Your task to perform on an android device: delete browsing data in the chrome app Image 0: 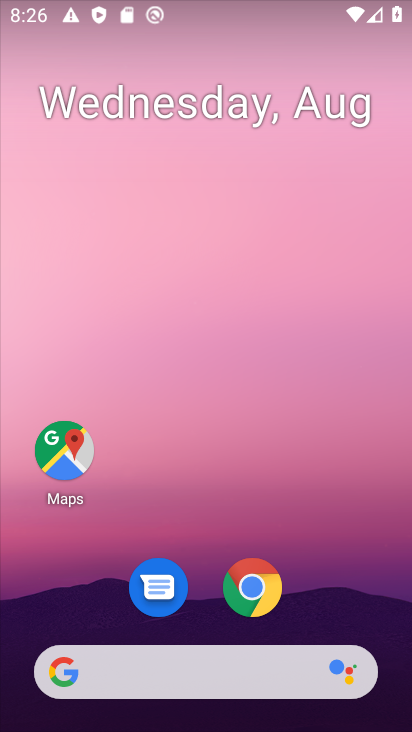
Step 0: drag from (325, 447) to (331, 302)
Your task to perform on an android device: delete browsing data in the chrome app Image 1: 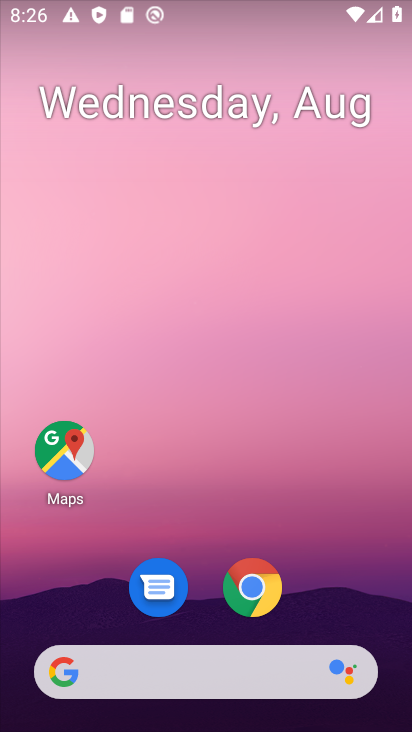
Step 1: drag from (272, 514) to (272, 172)
Your task to perform on an android device: delete browsing data in the chrome app Image 2: 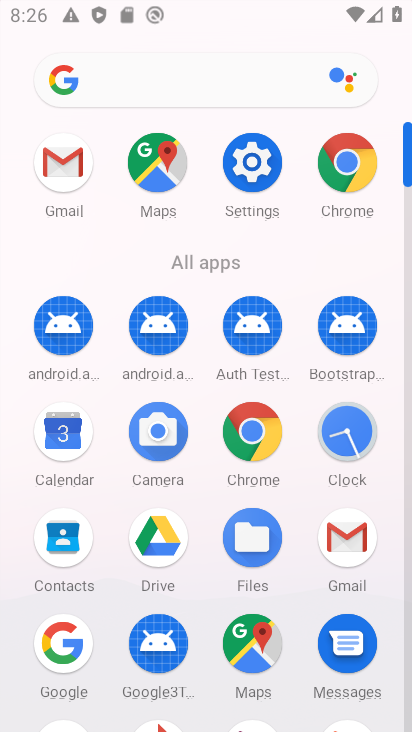
Step 2: click (298, 202)
Your task to perform on an android device: delete browsing data in the chrome app Image 3: 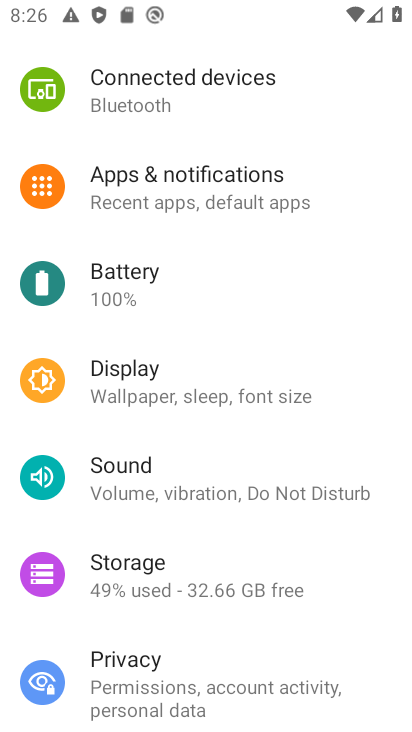
Step 3: press back button
Your task to perform on an android device: delete browsing data in the chrome app Image 4: 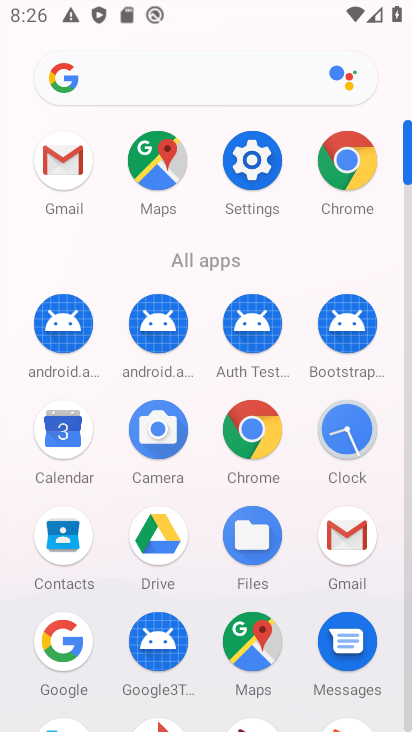
Step 4: click (356, 167)
Your task to perform on an android device: delete browsing data in the chrome app Image 5: 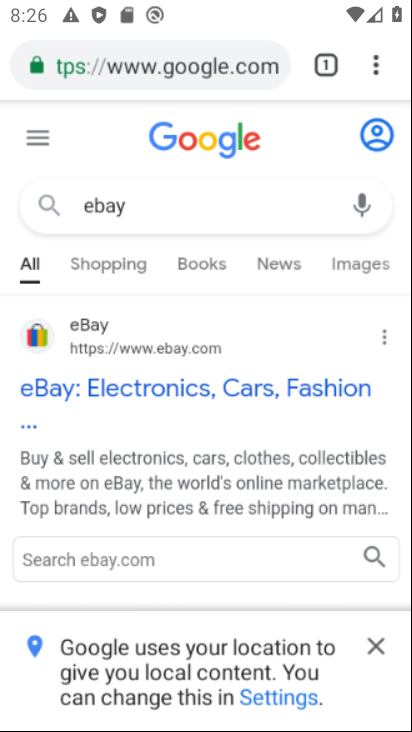
Step 5: click (356, 167)
Your task to perform on an android device: delete browsing data in the chrome app Image 6: 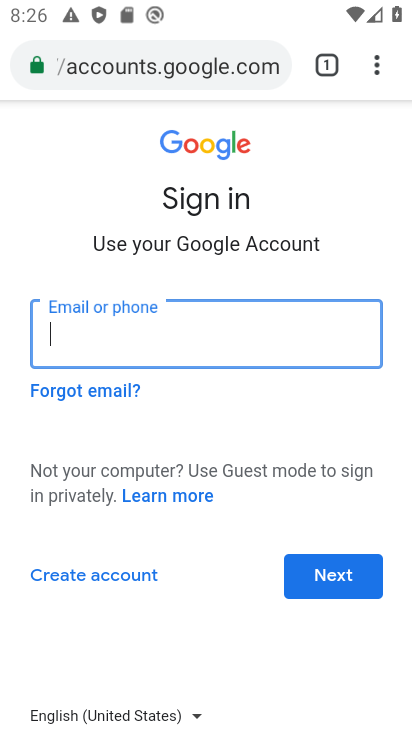
Step 6: press back button
Your task to perform on an android device: delete browsing data in the chrome app Image 7: 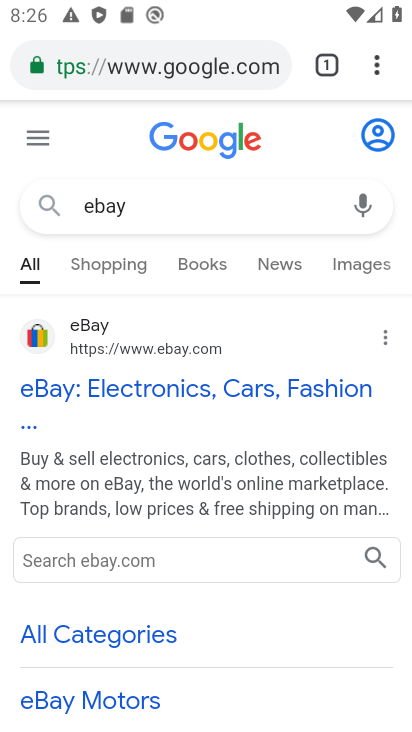
Step 7: press home button
Your task to perform on an android device: delete browsing data in the chrome app Image 8: 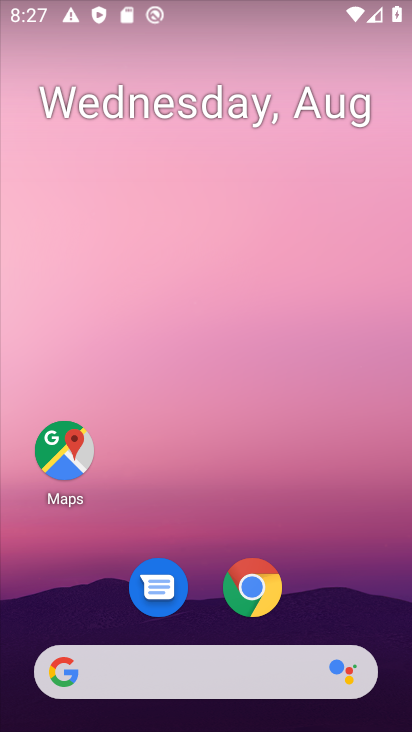
Step 8: drag from (174, 698) to (104, 312)
Your task to perform on an android device: delete browsing data in the chrome app Image 9: 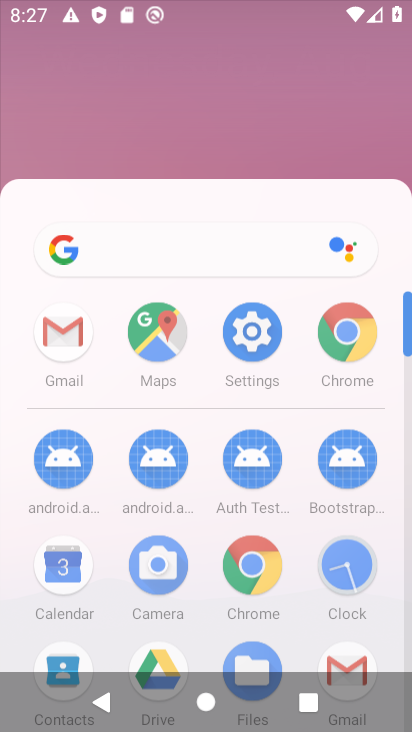
Step 9: drag from (177, 586) to (133, 246)
Your task to perform on an android device: delete browsing data in the chrome app Image 10: 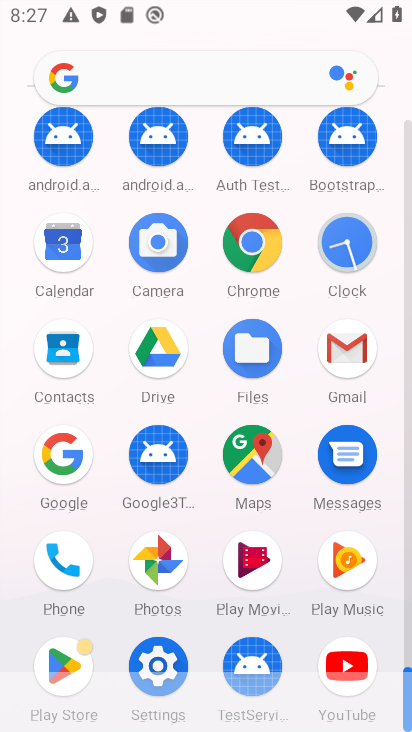
Step 10: click (244, 240)
Your task to perform on an android device: delete browsing data in the chrome app Image 11: 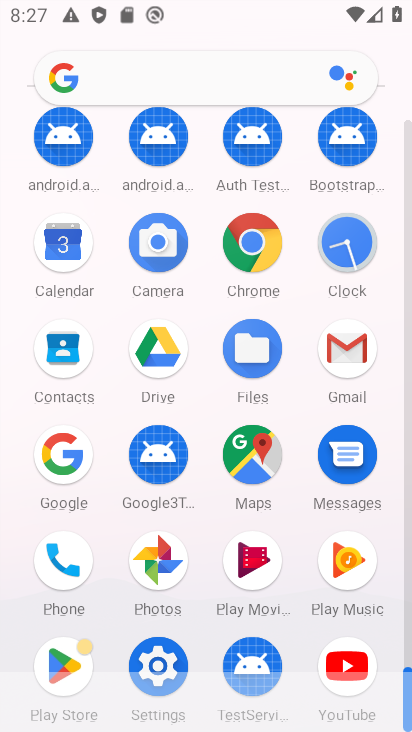
Step 11: click (244, 240)
Your task to perform on an android device: delete browsing data in the chrome app Image 12: 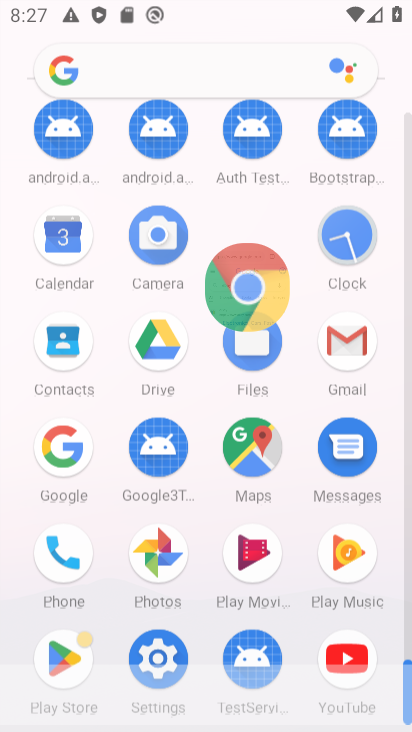
Step 12: click (244, 240)
Your task to perform on an android device: delete browsing data in the chrome app Image 13: 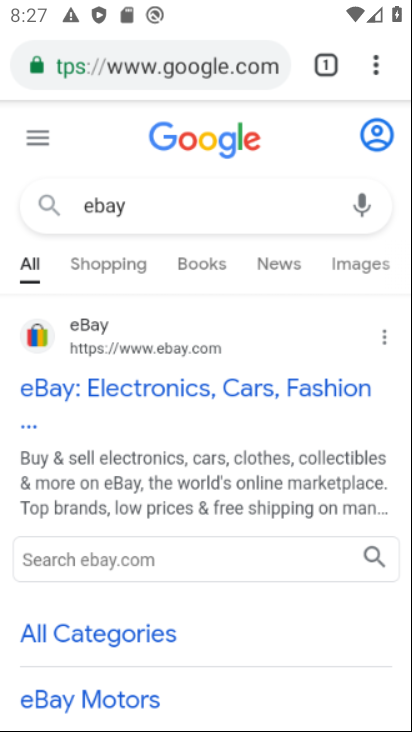
Step 13: click (244, 240)
Your task to perform on an android device: delete browsing data in the chrome app Image 14: 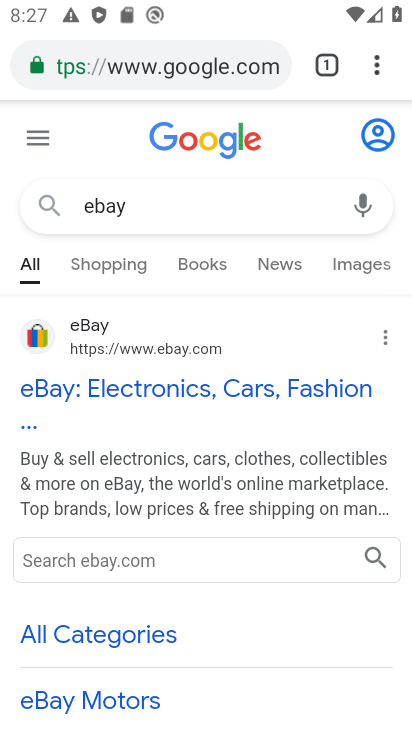
Step 14: drag from (375, 72) to (148, 361)
Your task to perform on an android device: delete browsing data in the chrome app Image 15: 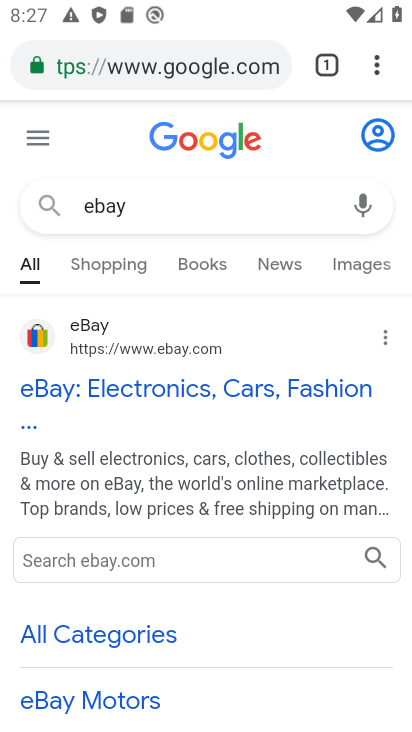
Step 15: click (148, 352)
Your task to perform on an android device: delete browsing data in the chrome app Image 16: 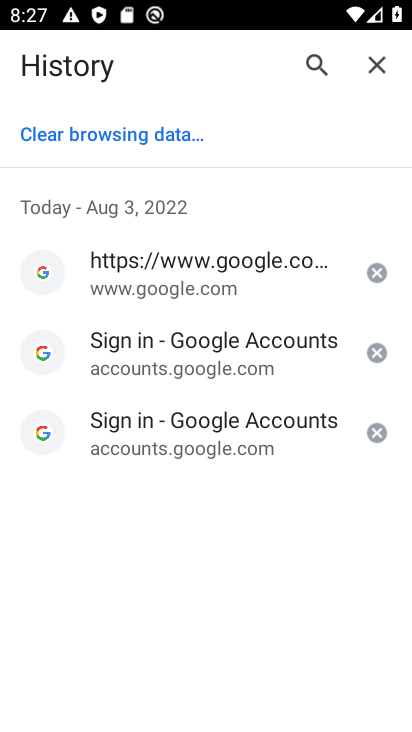
Step 16: click (102, 142)
Your task to perform on an android device: delete browsing data in the chrome app Image 17: 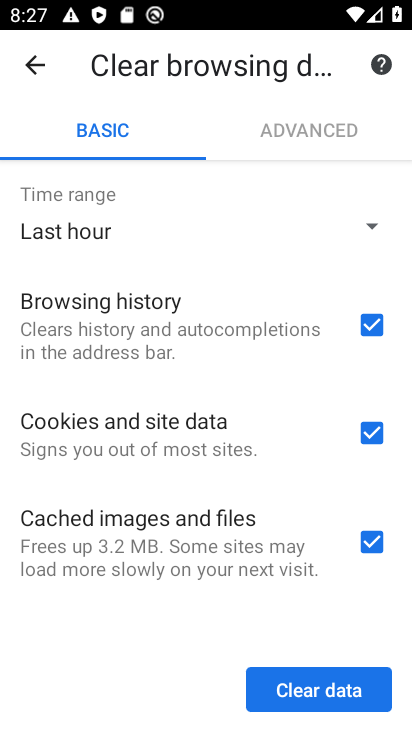
Step 17: click (336, 689)
Your task to perform on an android device: delete browsing data in the chrome app Image 18: 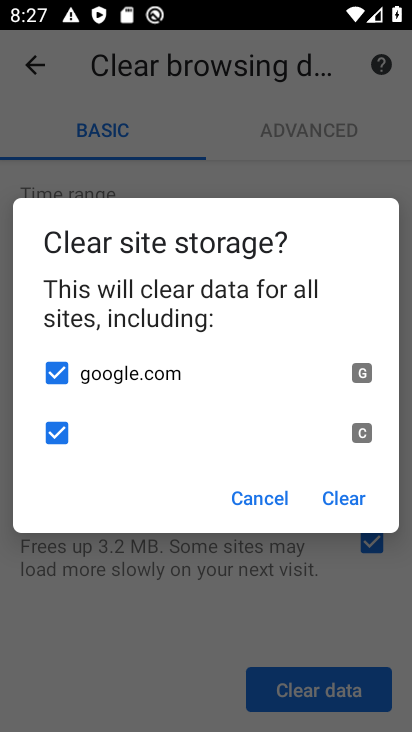
Step 18: click (348, 504)
Your task to perform on an android device: delete browsing data in the chrome app Image 19: 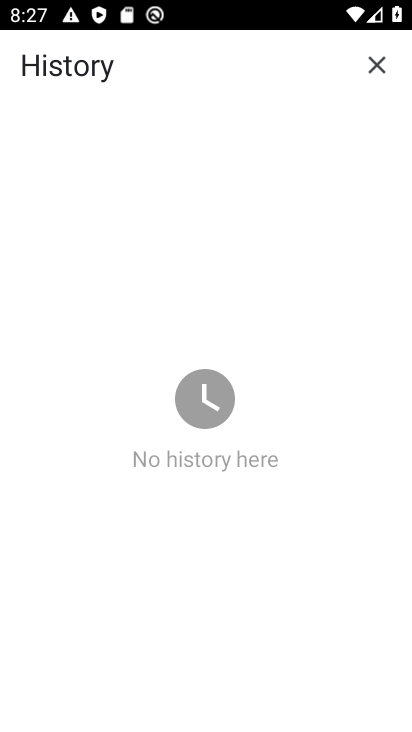
Step 19: task complete